Your task to perform on an android device: Toggle the flashlight Image 0: 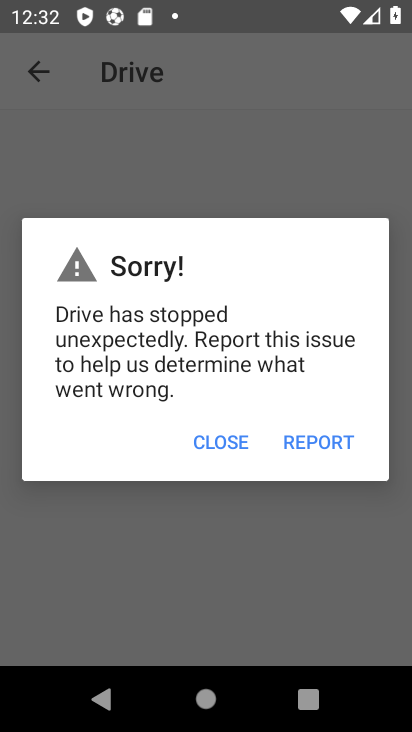
Step 0: press home button
Your task to perform on an android device: Toggle the flashlight Image 1: 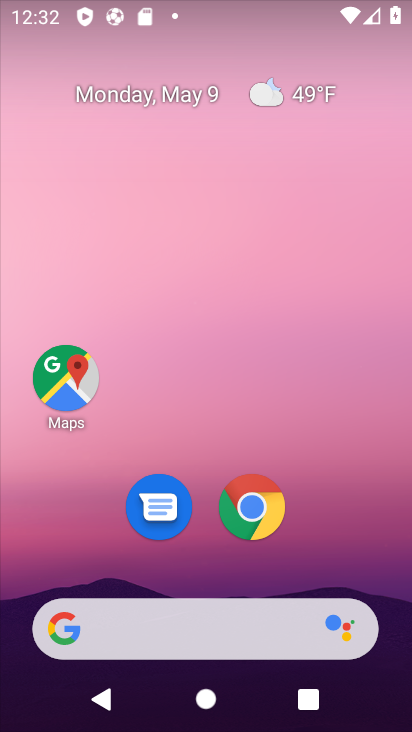
Step 1: drag from (267, 5) to (281, 385)
Your task to perform on an android device: Toggle the flashlight Image 2: 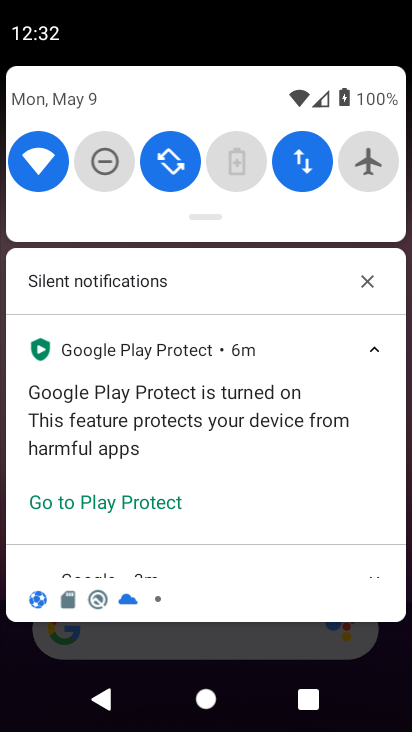
Step 2: drag from (155, 193) to (167, 466)
Your task to perform on an android device: Toggle the flashlight Image 3: 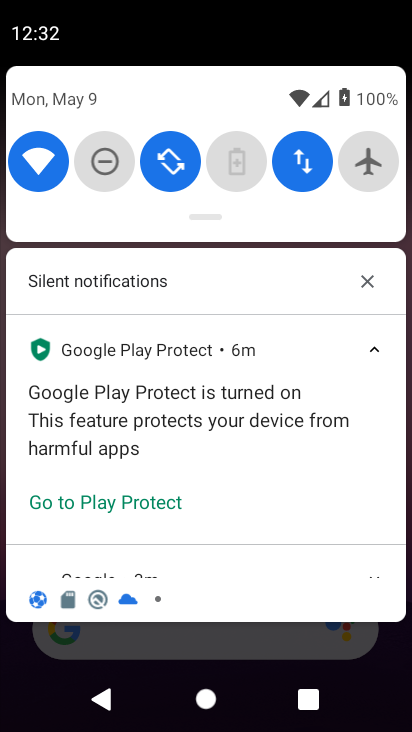
Step 3: drag from (152, 196) to (178, 725)
Your task to perform on an android device: Toggle the flashlight Image 4: 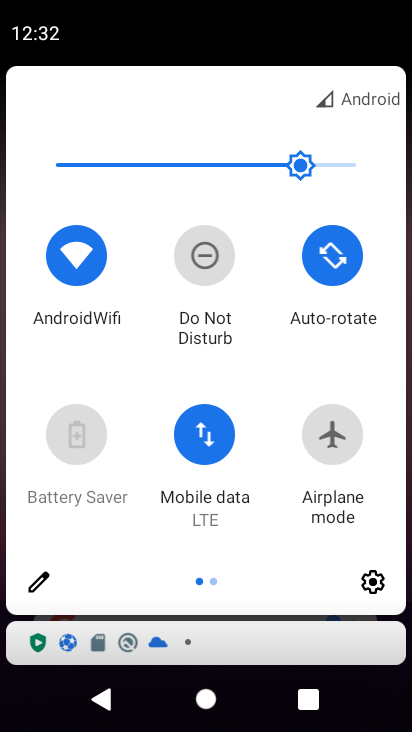
Step 4: drag from (341, 390) to (22, 452)
Your task to perform on an android device: Toggle the flashlight Image 5: 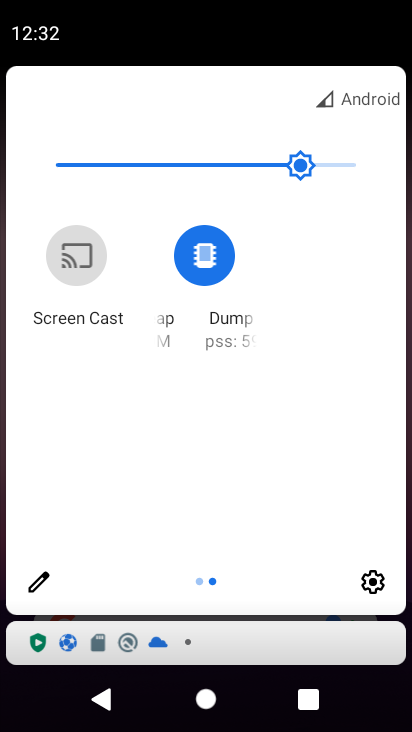
Step 5: drag from (306, 403) to (11, 525)
Your task to perform on an android device: Toggle the flashlight Image 6: 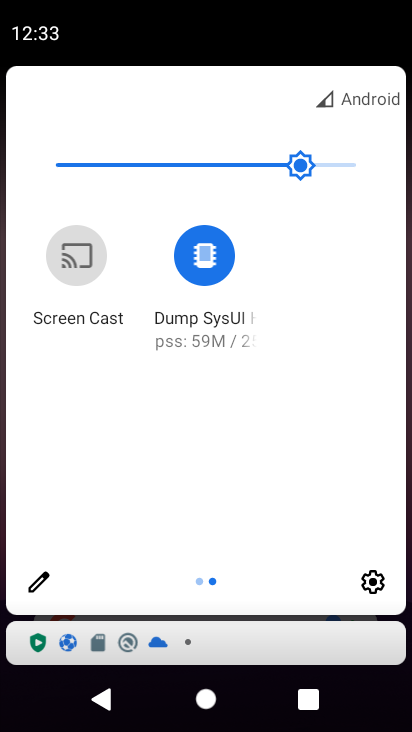
Step 6: click (46, 576)
Your task to perform on an android device: Toggle the flashlight Image 7: 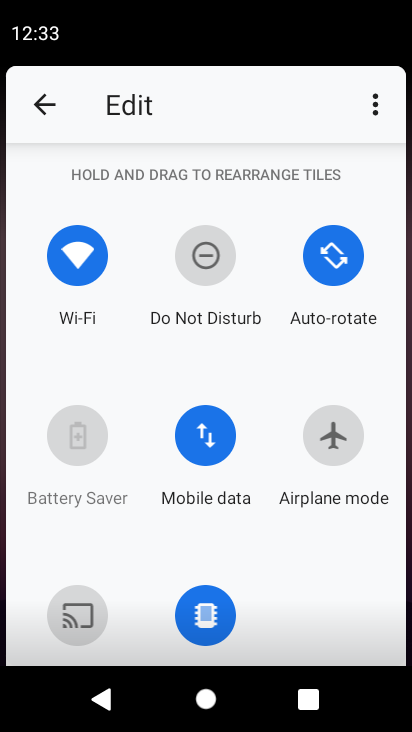
Step 7: task complete